Your task to perform on an android device: Open sound settings Image 0: 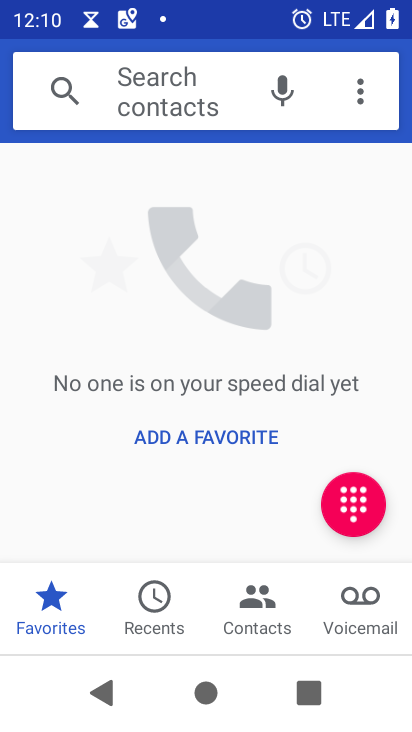
Step 0: press home button
Your task to perform on an android device: Open sound settings Image 1: 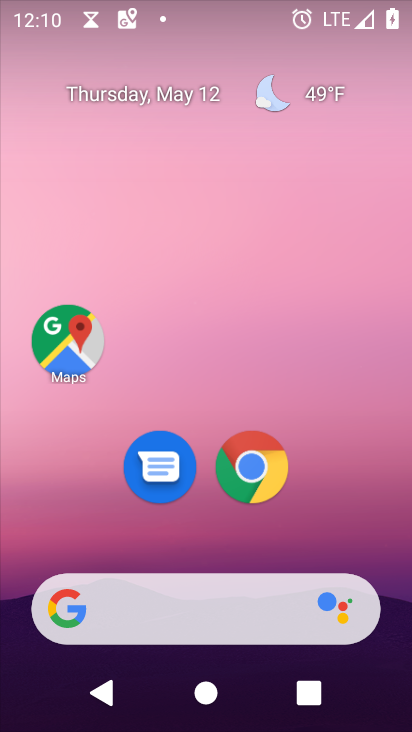
Step 1: drag from (230, 629) to (351, 236)
Your task to perform on an android device: Open sound settings Image 2: 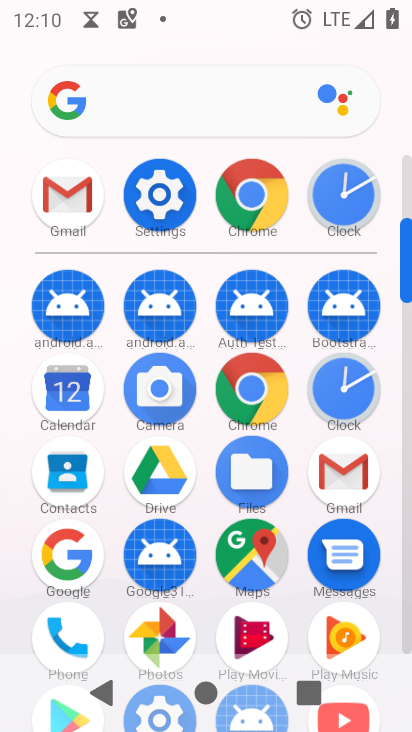
Step 2: click (163, 186)
Your task to perform on an android device: Open sound settings Image 3: 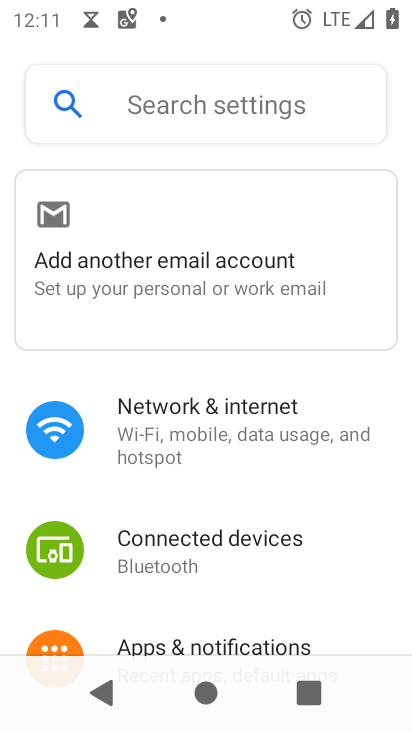
Step 3: drag from (215, 604) to (363, 179)
Your task to perform on an android device: Open sound settings Image 4: 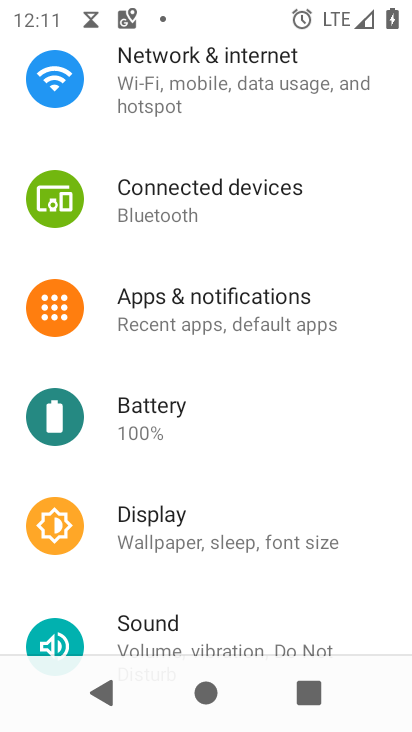
Step 4: click (135, 632)
Your task to perform on an android device: Open sound settings Image 5: 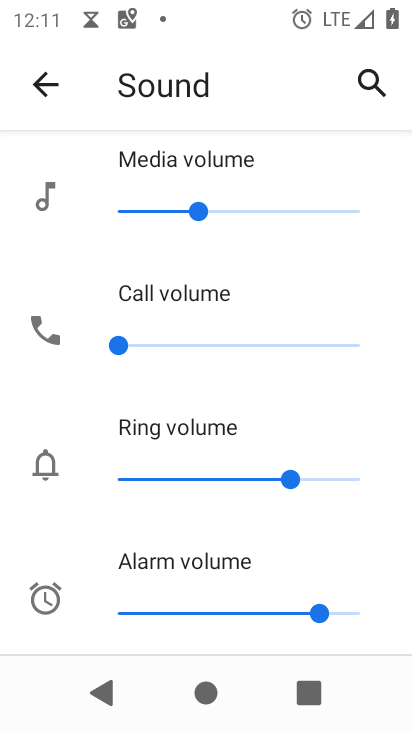
Step 5: task complete